Your task to perform on an android device: Go to location settings Image 0: 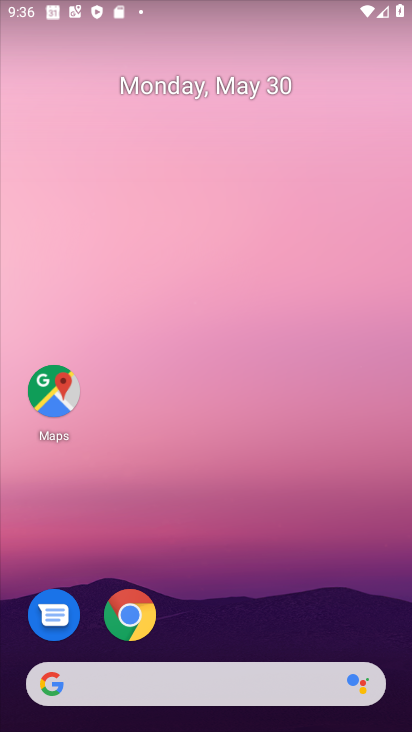
Step 0: drag from (291, 480) to (62, 2)
Your task to perform on an android device: Go to location settings Image 1: 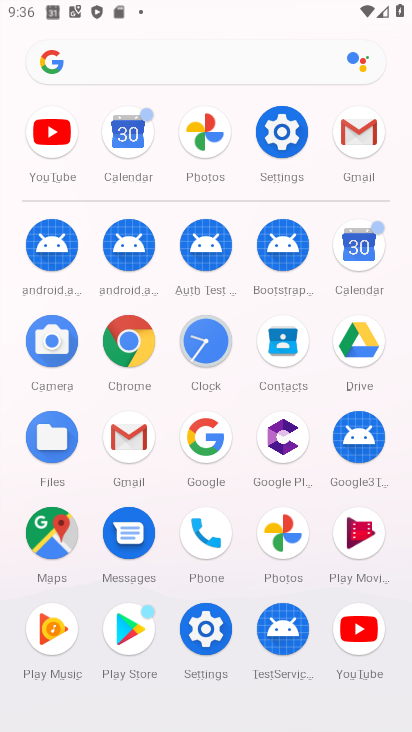
Step 1: click (278, 124)
Your task to perform on an android device: Go to location settings Image 2: 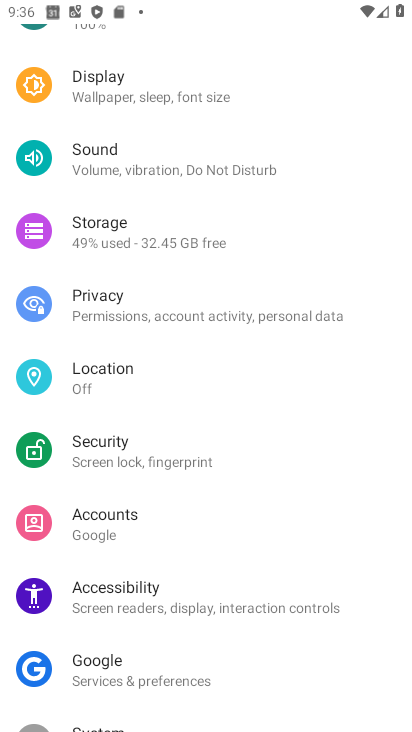
Step 2: drag from (218, 604) to (244, 100)
Your task to perform on an android device: Go to location settings Image 3: 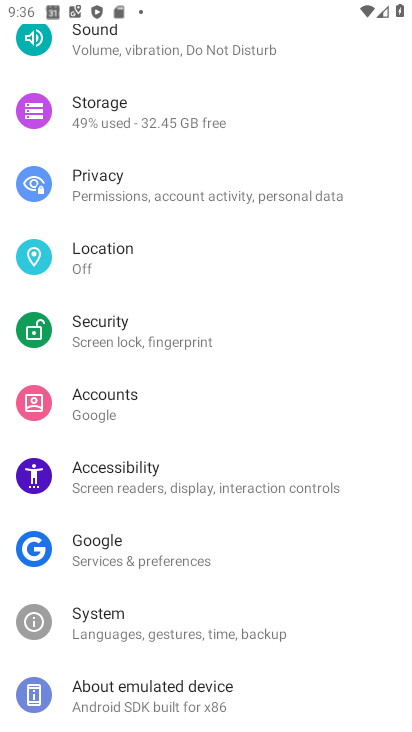
Step 3: click (139, 247)
Your task to perform on an android device: Go to location settings Image 4: 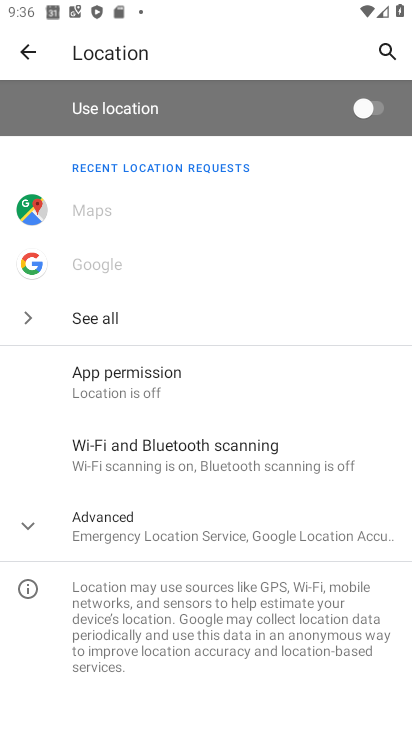
Step 4: task complete